Your task to perform on an android device: check google app version Image 0: 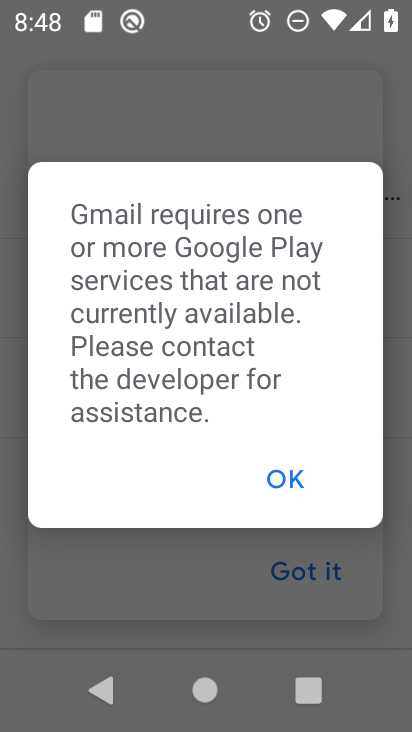
Step 0: click (289, 483)
Your task to perform on an android device: check google app version Image 1: 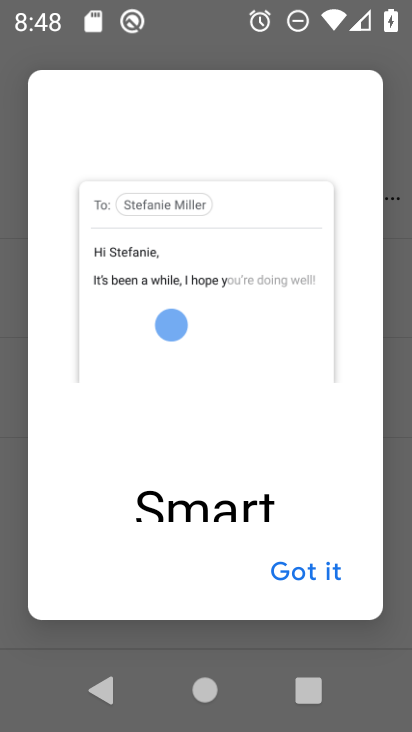
Step 1: click (329, 574)
Your task to perform on an android device: check google app version Image 2: 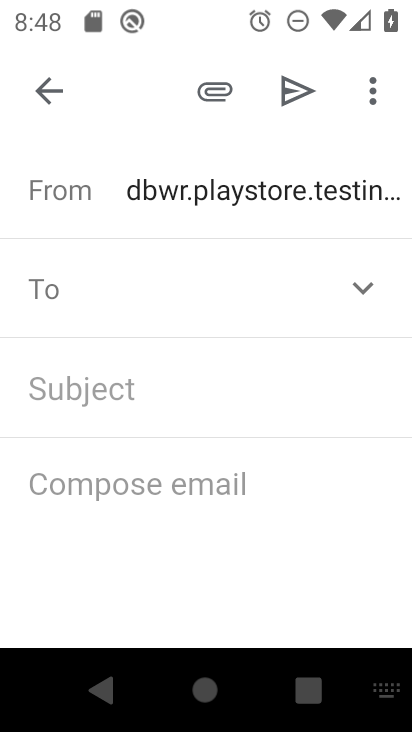
Step 2: press home button
Your task to perform on an android device: check google app version Image 3: 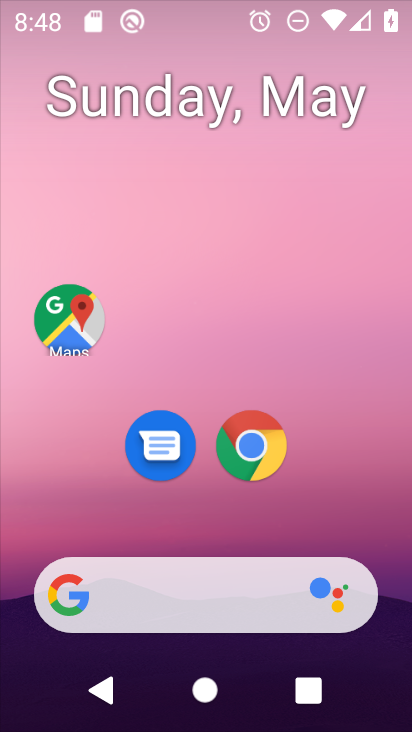
Step 3: drag from (223, 478) to (270, 70)
Your task to perform on an android device: check google app version Image 4: 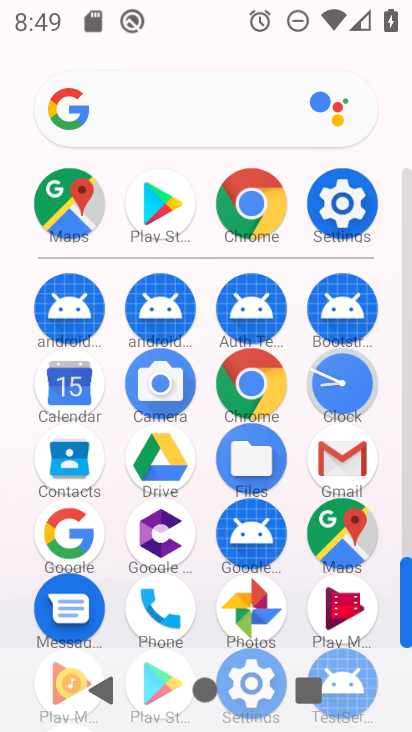
Step 4: drag from (162, 554) to (226, 264)
Your task to perform on an android device: check google app version Image 5: 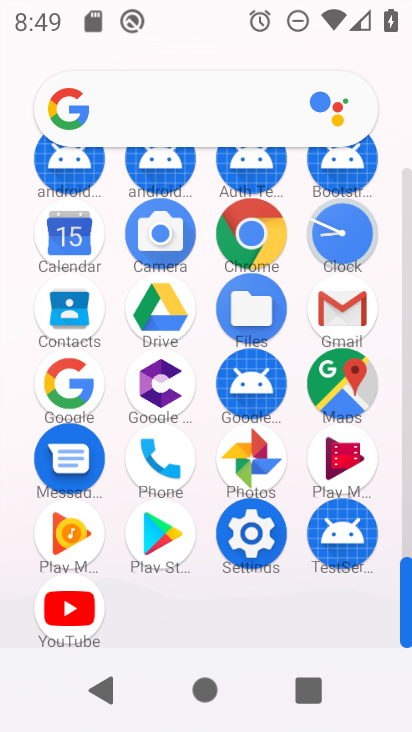
Step 5: click (66, 397)
Your task to perform on an android device: check google app version Image 6: 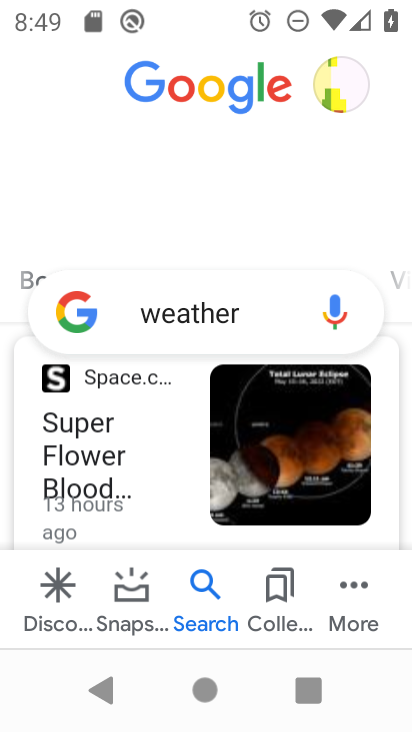
Step 6: click (359, 603)
Your task to perform on an android device: check google app version Image 7: 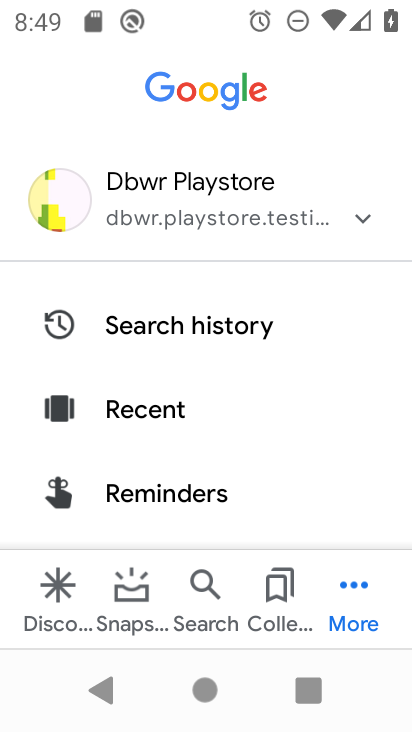
Step 7: drag from (230, 438) to (257, 173)
Your task to perform on an android device: check google app version Image 8: 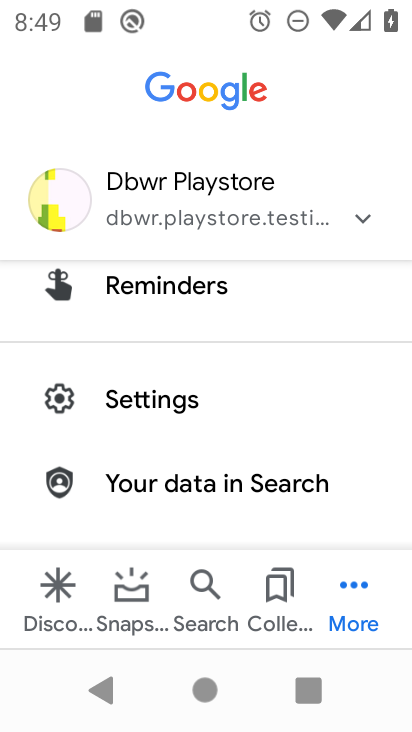
Step 8: click (207, 398)
Your task to perform on an android device: check google app version Image 9: 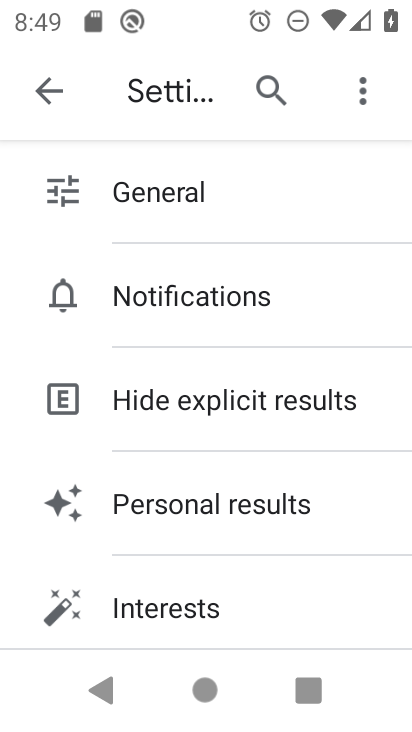
Step 9: drag from (232, 491) to (283, 143)
Your task to perform on an android device: check google app version Image 10: 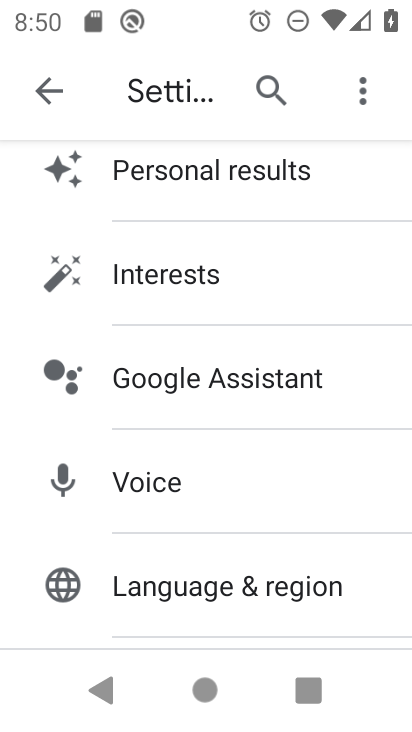
Step 10: drag from (206, 519) to (209, 222)
Your task to perform on an android device: check google app version Image 11: 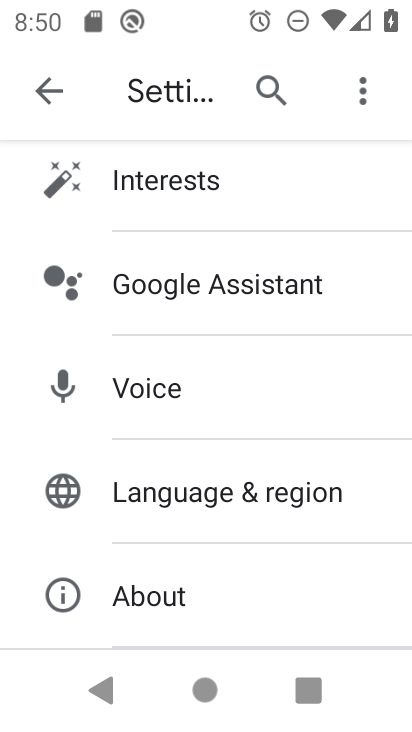
Step 11: click (190, 611)
Your task to perform on an android device: check google app version Image 12: 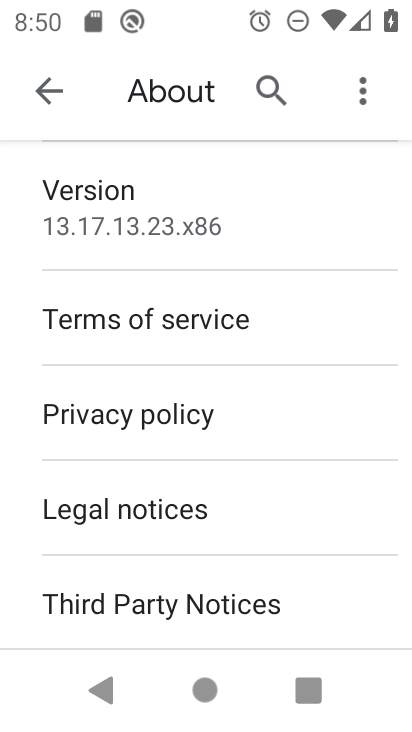
Step 12: task complete